Your task to perform on an android device: Search for Mexican restaurants on Maps Image 0: 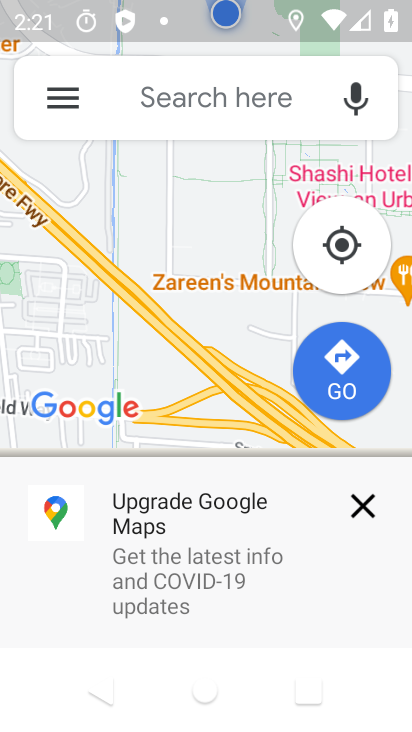
Step 0: click (190, 88)
Your task to perform on an android device: Search for Mexican restaurants on Maps Image 1: 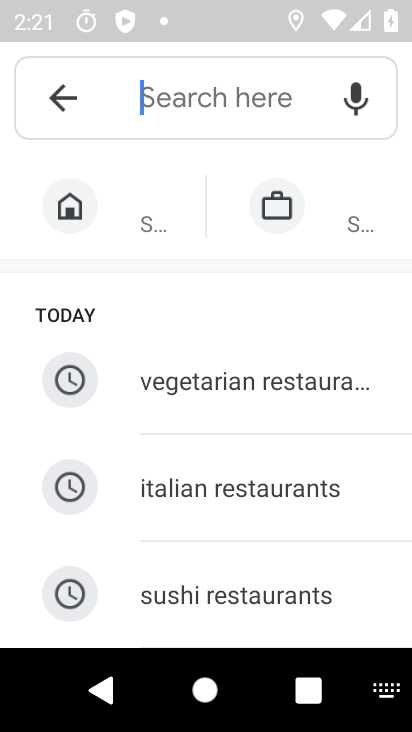
Step 1: type "mexican restuarants"
Your task to perform on an android device: Search for Mexican restaurants on Maps Image 2: 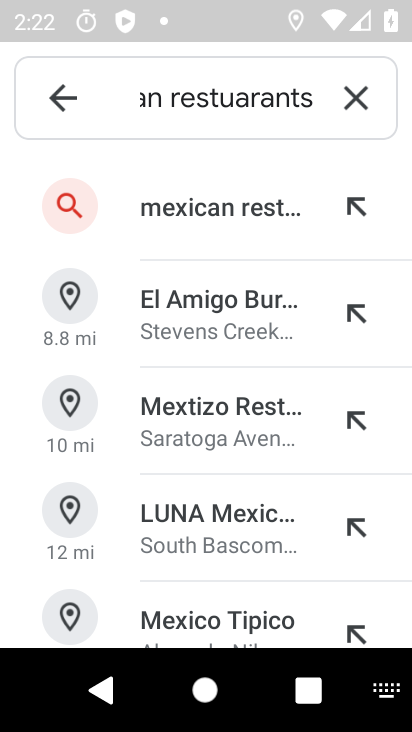
Step 2: click (234, 227)
Your task to perform on an android device: Search for Mexican restaurants on Maps Image 3: 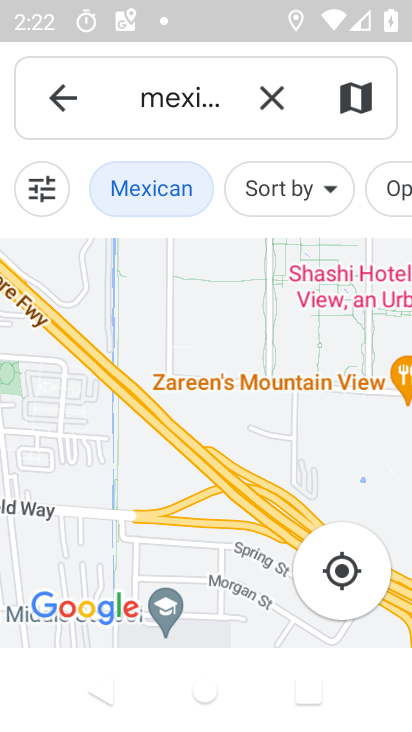
Step 3: task complete